Your task to perform on an android device: Open Google Chrome and open the bookmarks view Image 0: 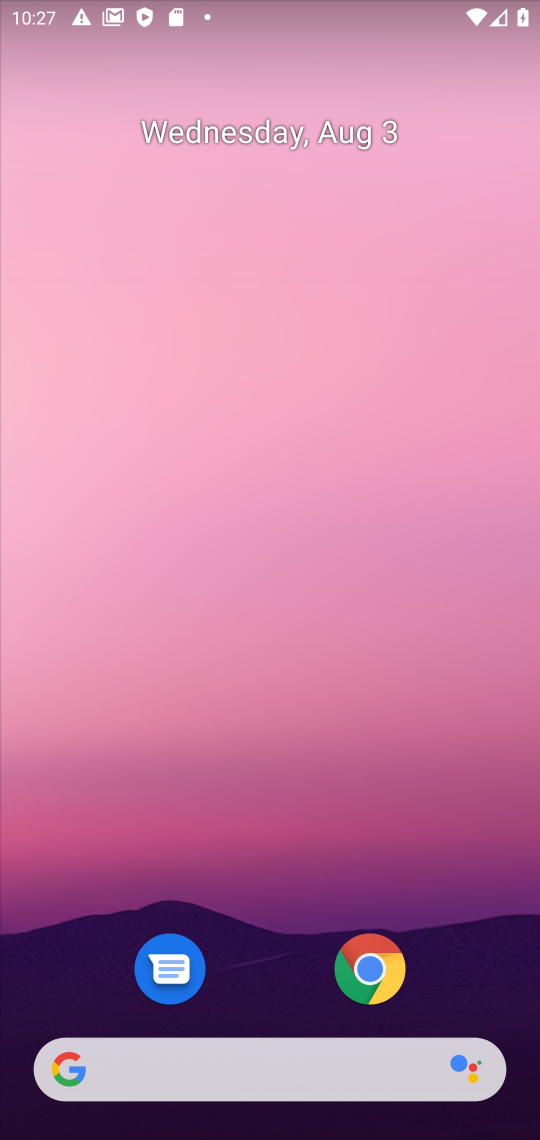
Step 0: click (355, 990)
Your task to perform on an android device: Open Google Chrome and open the bookmarks view Image 1: 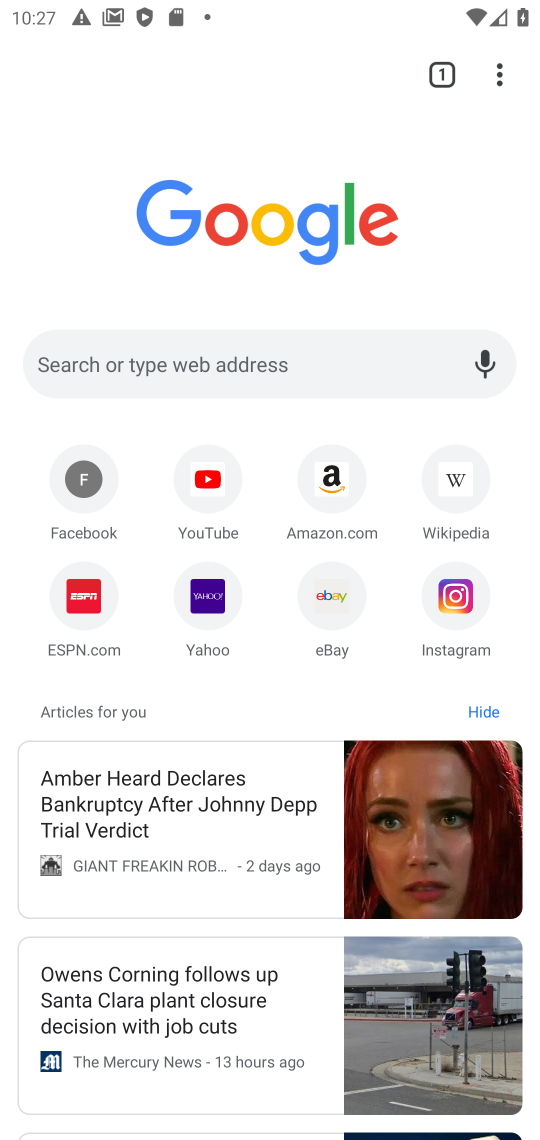
Step 1: task complete